Your task to perform on an android device: open device folders in google photos Image 0: 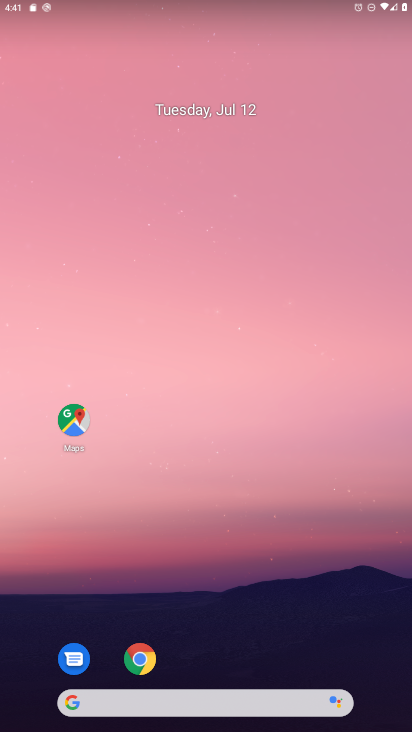
Step 0: drag from (182, 595) to (177, 247)
Your task to perform on an android device: open device folders in google photos Image 1: 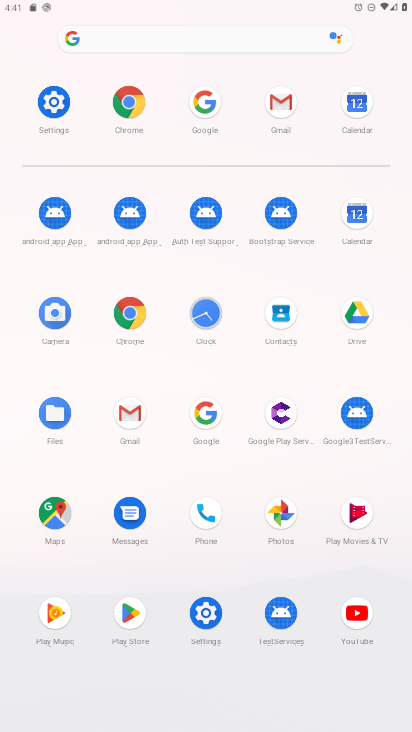
Step 1: click (282, 518)
Your task to perform on an android device: open device folders in google photos Image 2: 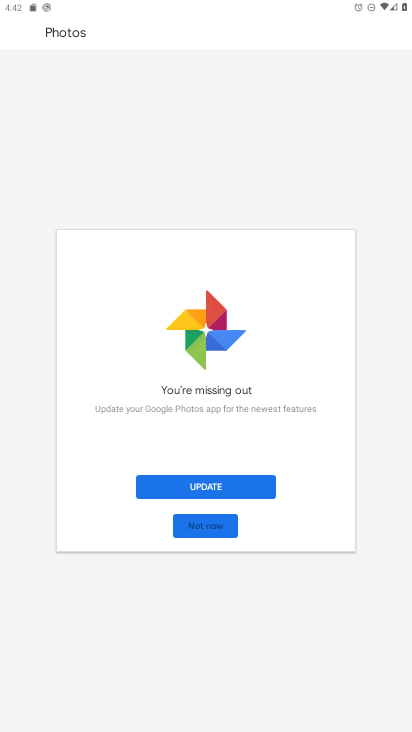
Step 2: click (185, 527)
Your task to perform on an android device: open device folders in google photos Image 3: 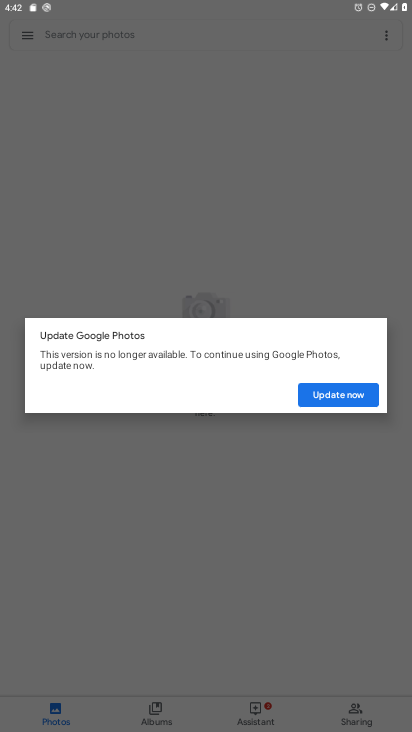
Step 3: click (325, 396)
Your task to perform on an android device: open device folders in google photos Image 4: 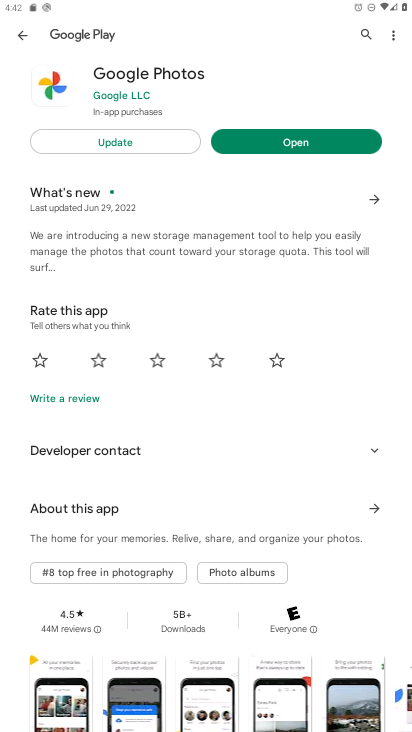
Step 4: click (283, 145)
Your task to perform on an android device: open device folders in google photos Image 5: 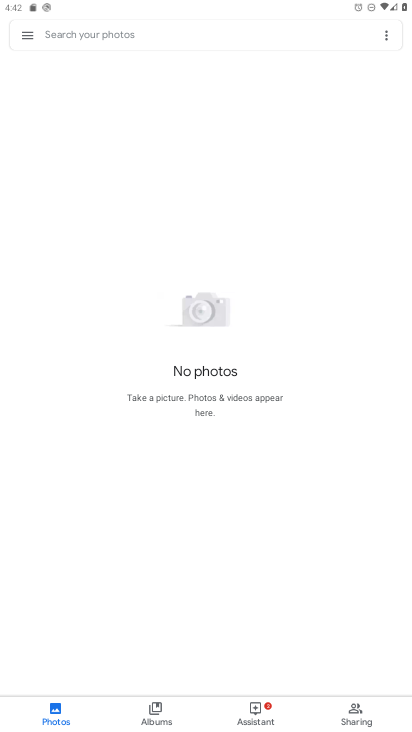
Step 5: click (30, 32)
Your task to perform on an android device: open device folders in google photos Image 6: 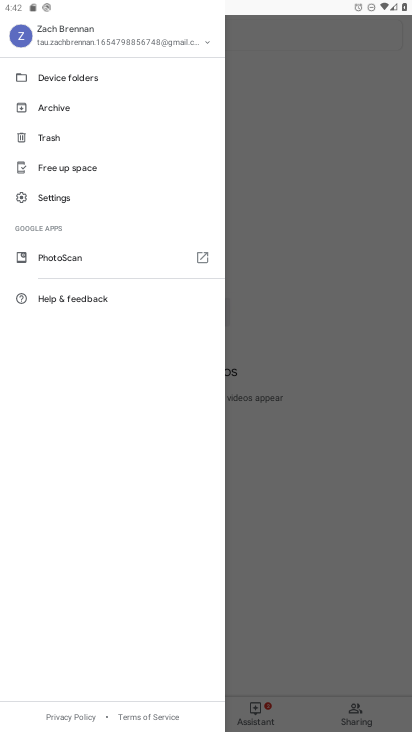
Step 6: click (59, 77)
Your task to perform on an android device: open device folders in google photos Image 7: 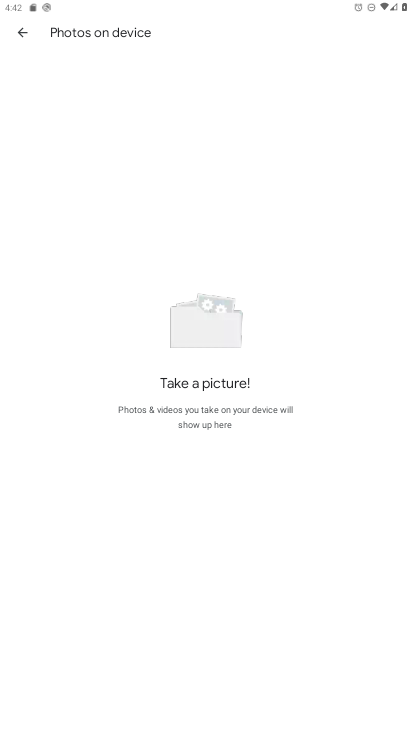
Step 7: task complete